Your task to perform on an android device: Open Google Maps Image 0: 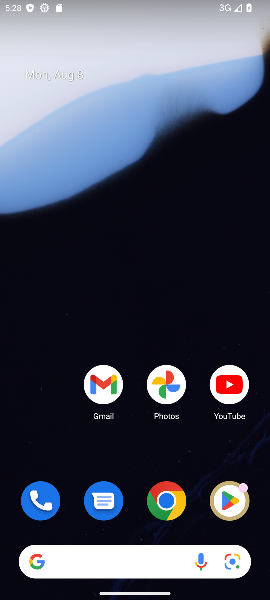
Step 0: click (6, 586)
Your task to perform on an android device: Open Google Maps Image 1: 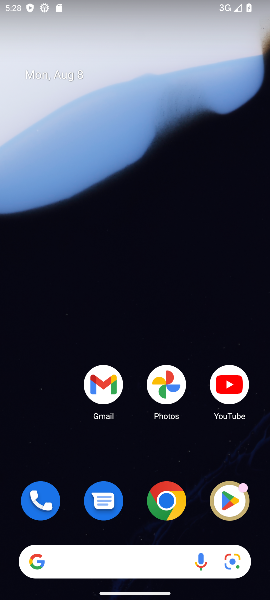
Step 1: drag from (6, 586) to (133, 186)
Your task to perform on an android device: Open Google Maps Image 2: 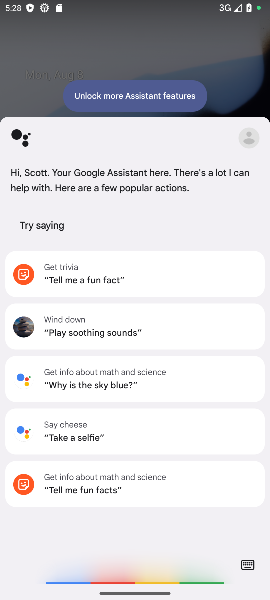
Step 2: press home button
Your task to perform on an android device: Open Google Maps Image 3: 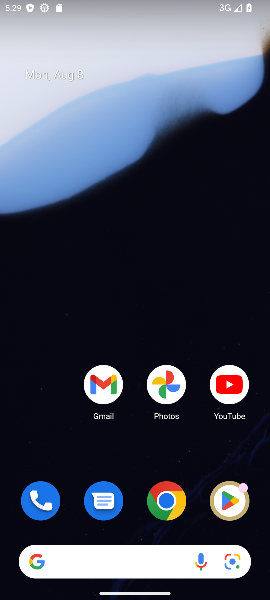
Step 3: click (6, 530)
Your task to perform on an android device: Open Google Maps Image 4: 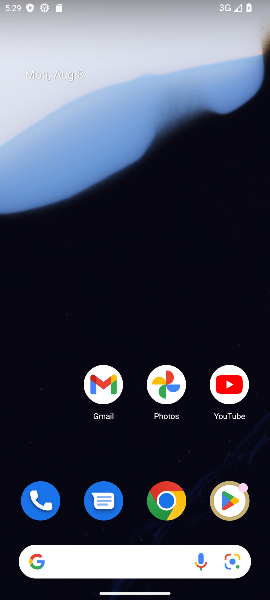
Step 4: drag from (2, 533) to (191, 191)
Your task to perform on an android device: Open Google Maps Image 5: 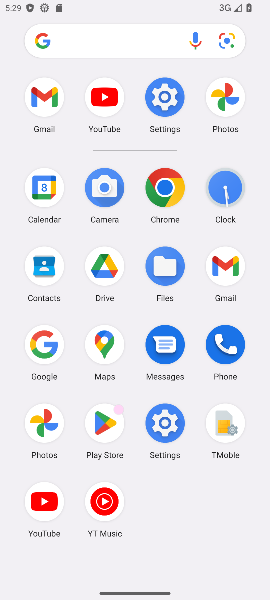
Step 5: click (119, 358)
Your task to perform on an android device: Open Google Maps Image 6: 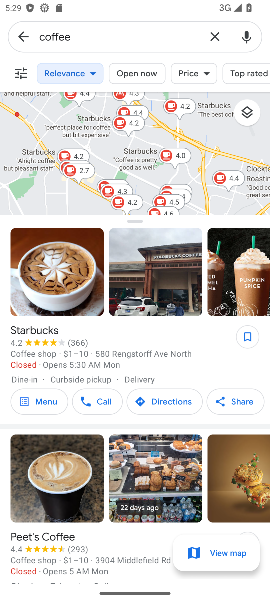
Step 6: click (22, 39)
Your task to perform on an android device: Open Google Maps Image 7: 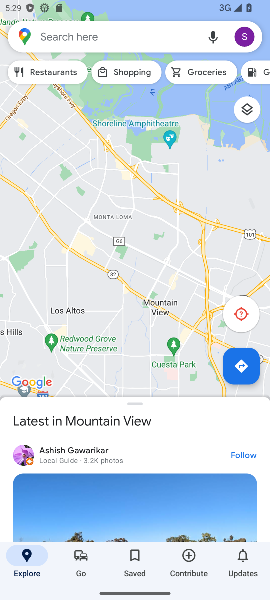
Step 7: task complete